Your task to perform on an android device: What is the recent news? Image 0: 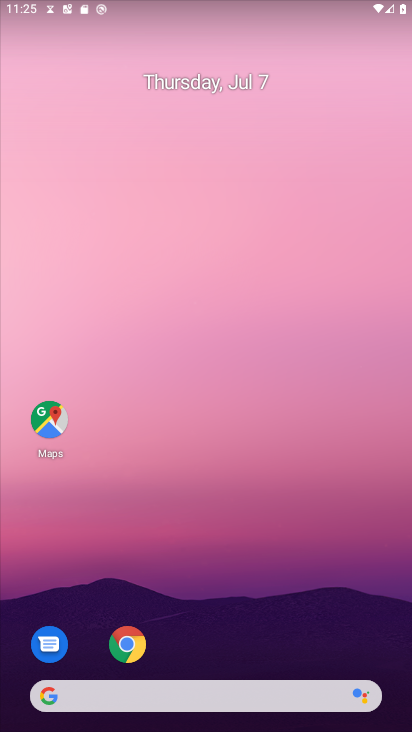
Step 0: click (219, 701)
Your task to perform on an android device: What is the recent news? Image 1: 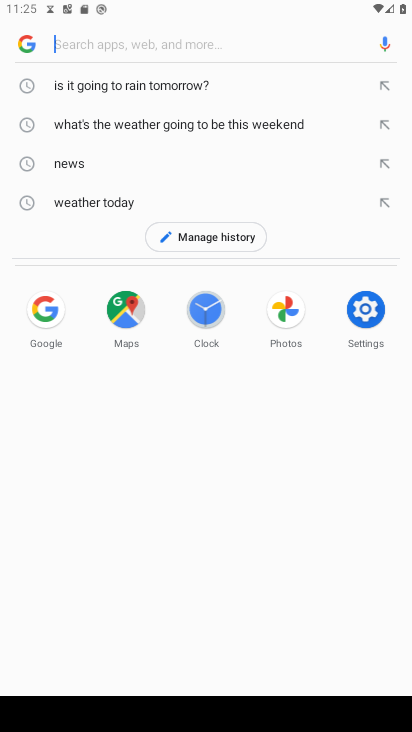
Step 1: type " recent news"
Your task to perform on an android device: What is the recent news? Image 2: 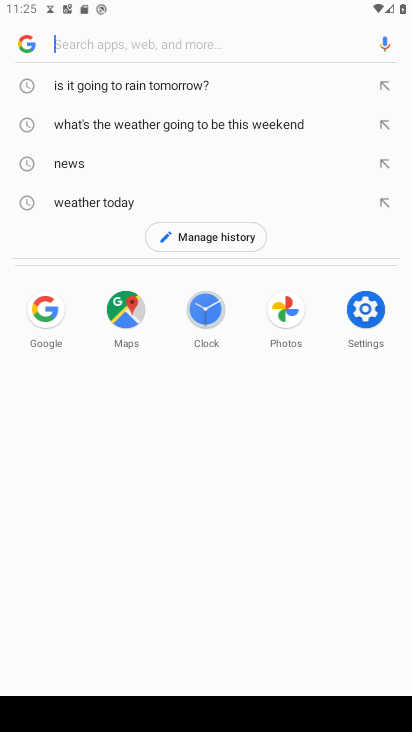
Step 2: click (131, 39)
Your task to perform on an android device: What is the recent news? Image 3: 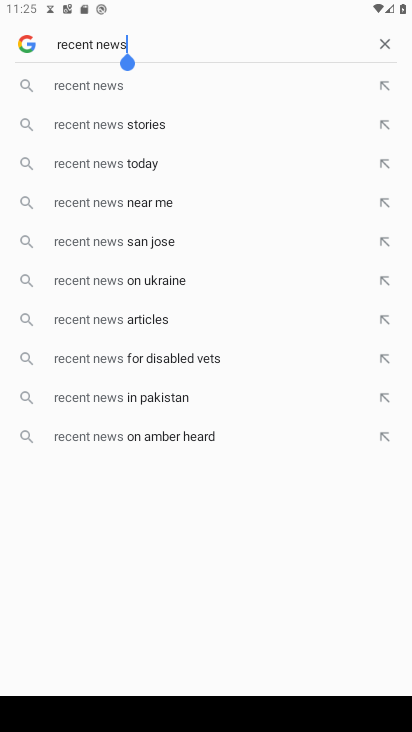
Step 3: click (104, 88)
Your task to perform on an android device: What is the recent news? Image 4: 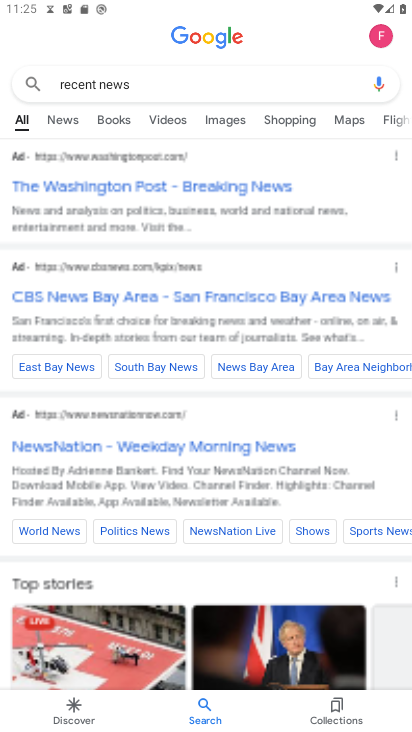
Step 4: task complete